Your task to perform on an android device: Open the phone app and click the voicemail tab. Image 0: 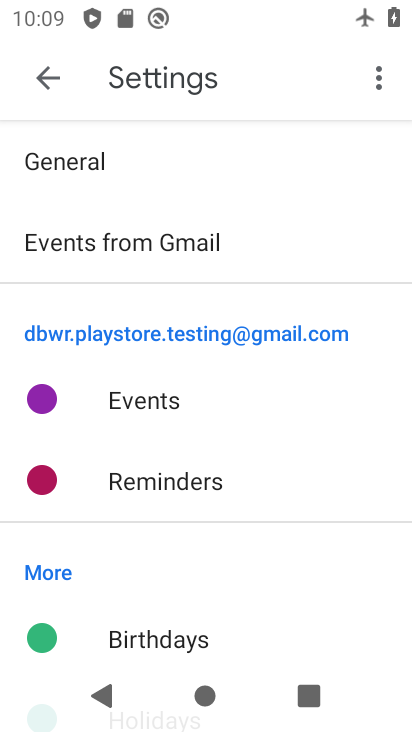
Step 0: drag from (241, 526) to (312, 56)
Your task to perform on an android device: Open the phone app and click the voicemail tab. Image 1: 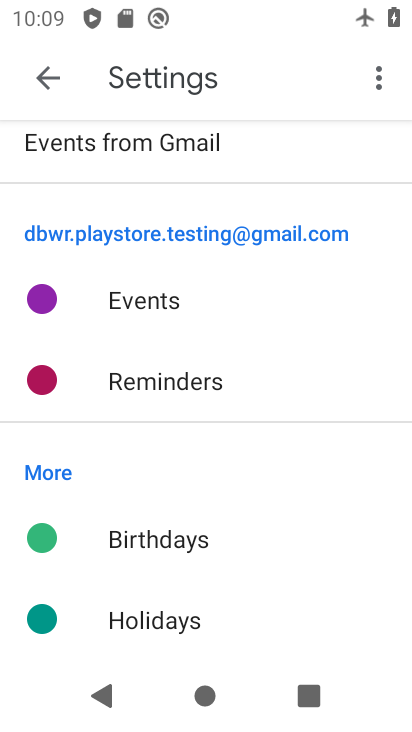
Step 1: press home button
Your task to perform on an android device: Open the phone app and click the voicemail tab. Image 2: 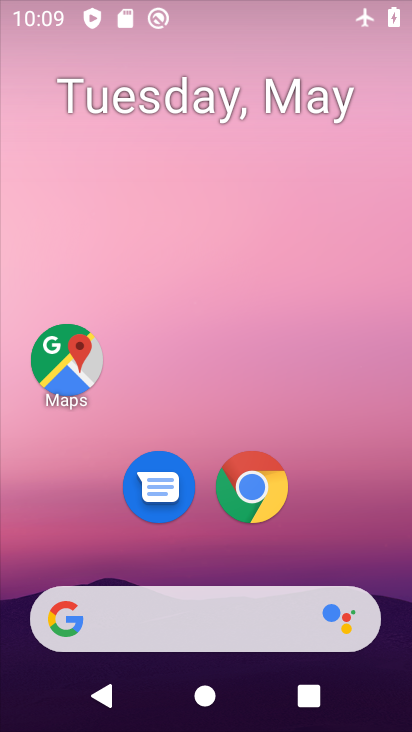
Step 2: drag from (153, 569) to (232, 74)
Your task to perform on an android device: Open the phone app and click the voicemail tab. Image 3: 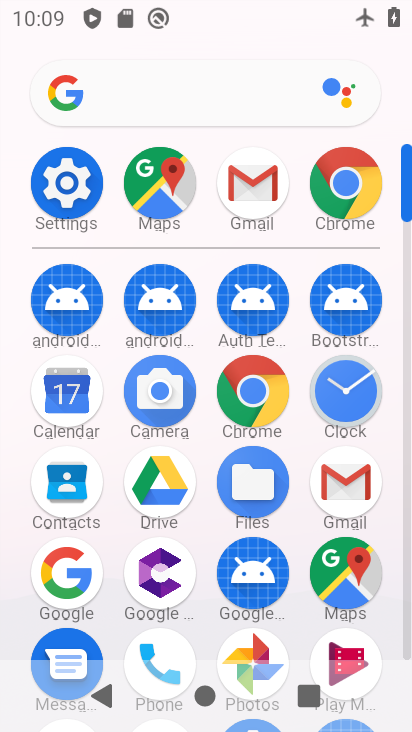
Step 3: click (155, 641)
Your task to perform on an android device: Open the phone app and click the voicemail tab. Image 4: 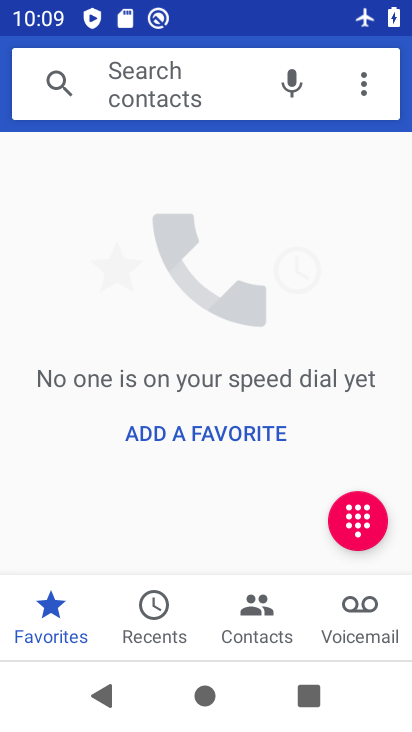
Step 4: click (352, 600)
Your task to perform on an android device: Open the phone app and click the voicemail tab. Image 5: 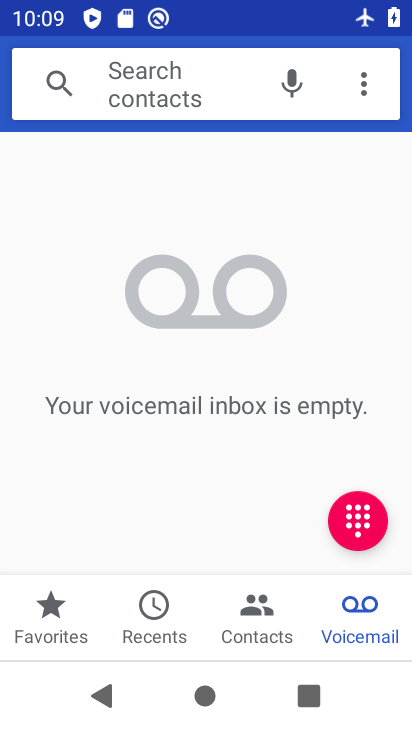
Step 5: task complete